Your task to perform on an android device: turn on airplane mode Image 0: 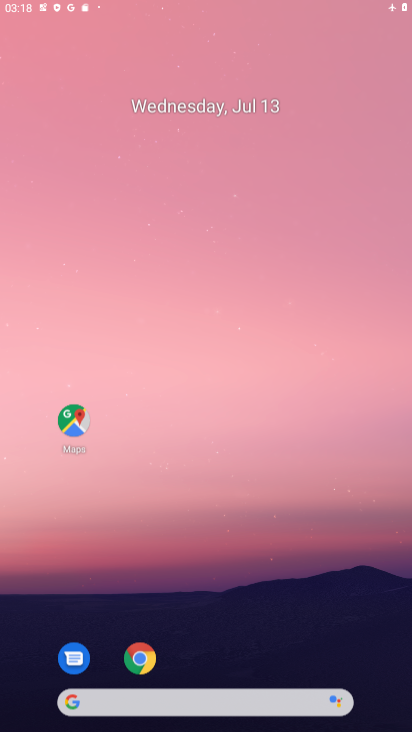
Step 0: drag from (308, 1) to (235, 16)
Your task to perform on an android device: turn on airplane mode Image 1: 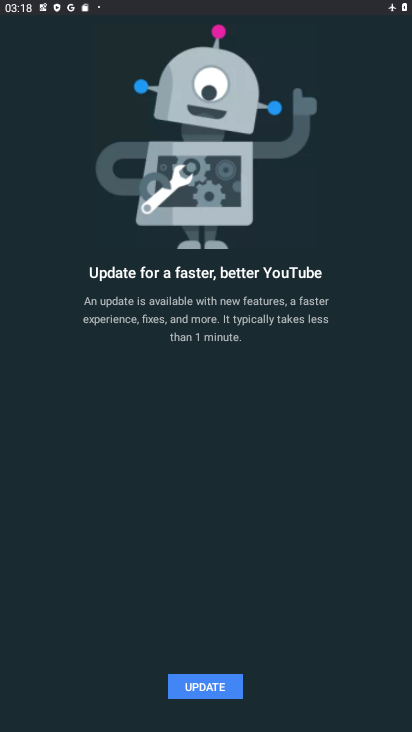
Step 1: press back button
Your task to perform on an android device: turn on airplane mode Image 2: 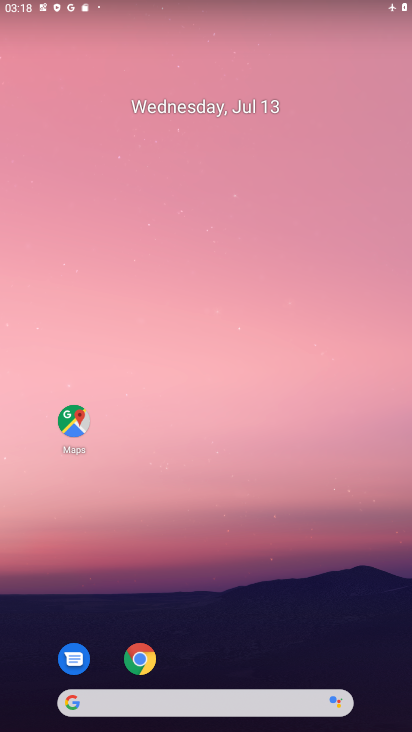
Step 2: drag from (302, 677) to (315, 197)
Your task to perform on an android device: turn on airplane mode Image 3: 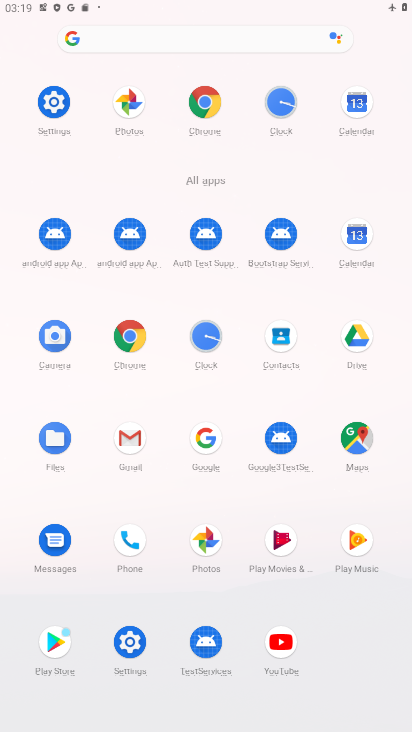
Step 3: click (55, 125)
Your task to perform on an android device: turn on airplane mode Image 4: 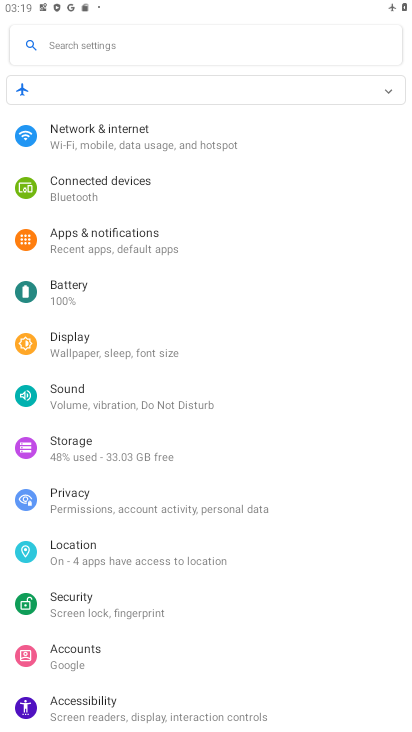
Step 4: click (164, 164)
Your task to perform on an android device: turn on airplane mode Image 5: 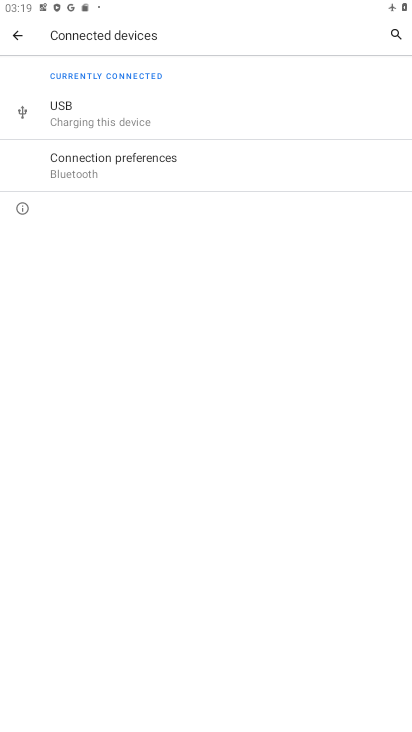
Step 5: click (10, 30)
Your task to perform on an android device: turn on airplane mode Image 6: 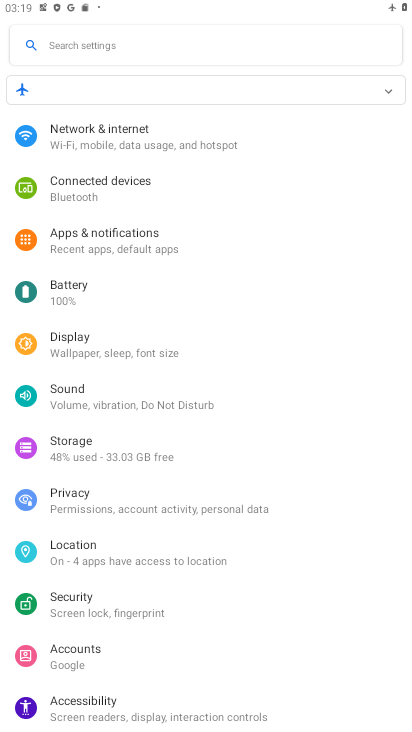
Step 6: click (154, 156)
Your task to perform on an android device: turn on airplane mode Image 7: 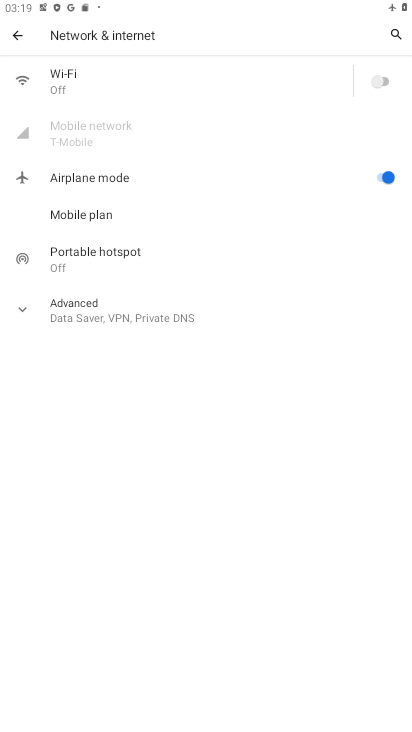
Step 7: task complete